Your task to perform on an android device: add a label to a message in the gmail app Image 0: 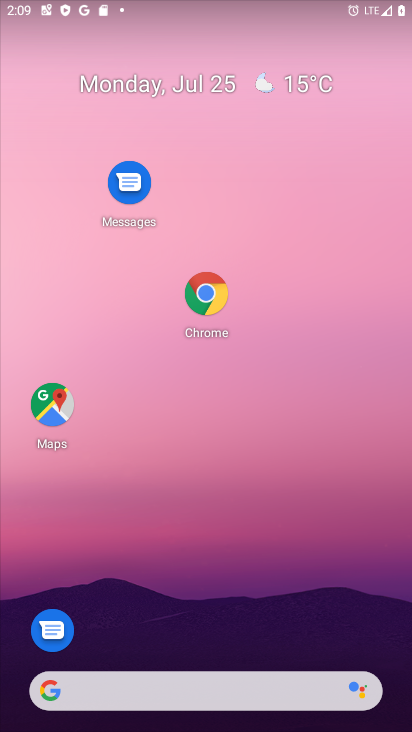
Step 0: drag from (183, 613) to (331, 50)
Your task to perform on an android device: add a label to a message in the gmail app Image 1: 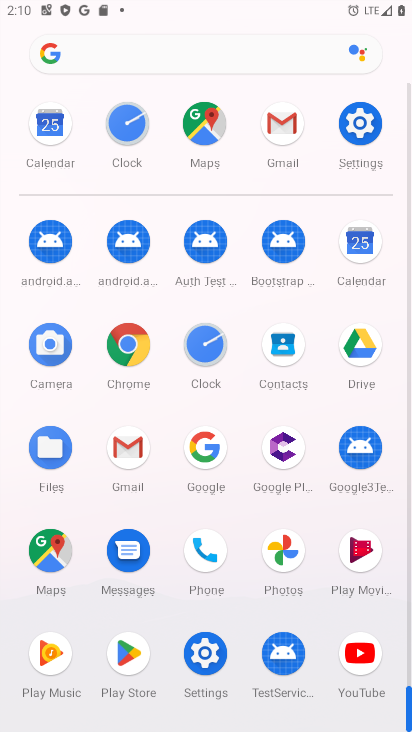
Step 1: click (267, 108)
Your task to perform on an android device: add a label to a message in the gmail app Image 2: 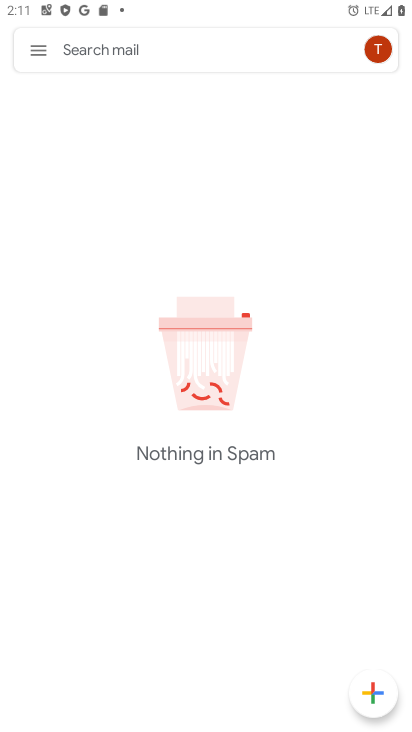
Step 2: click (44, 57)
Your task to perform on an android device: add a label to a message in the gmail app Image 3: 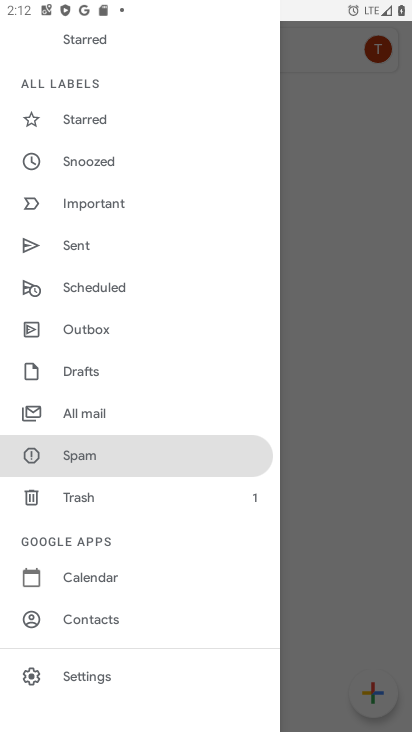
Step 3: drag from (151, 152) to (94, 369)
Your task to perform on an android device: add a label to a message in the gmail app Image 4: 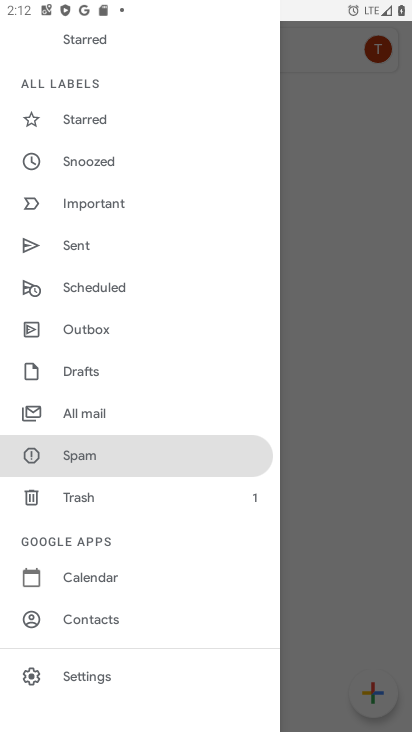
Step 4: click (333, 341)
Your task to perform on an android device: add a label to a message in the gmail app Image 5: 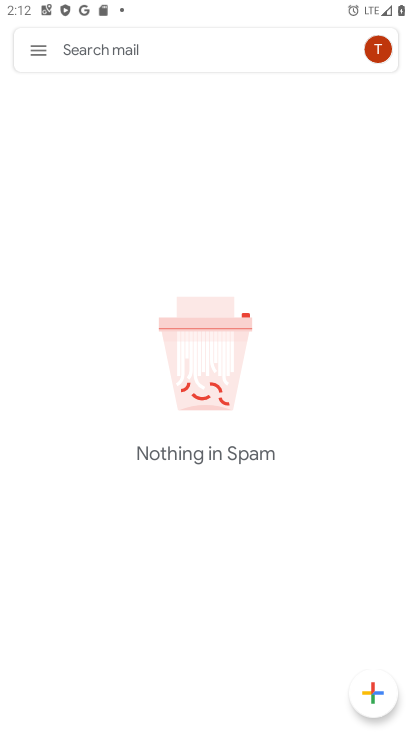
Step 5: task complete